Your task to perform on an android device: Go to privacy settings Image 0: 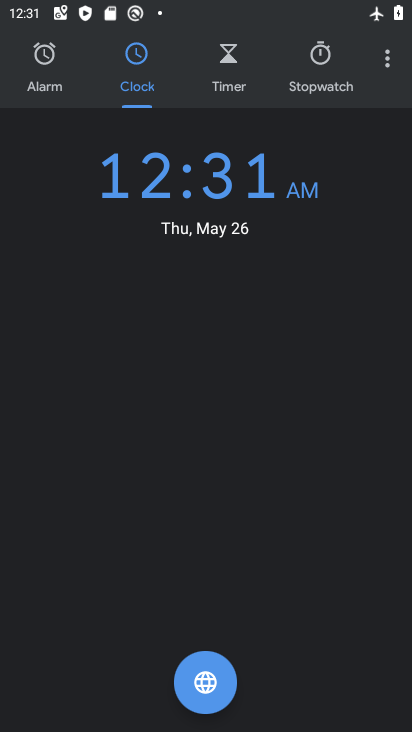
Step 0: press home button
Your task to perform on an android device: Go to privacy settings Image 1: 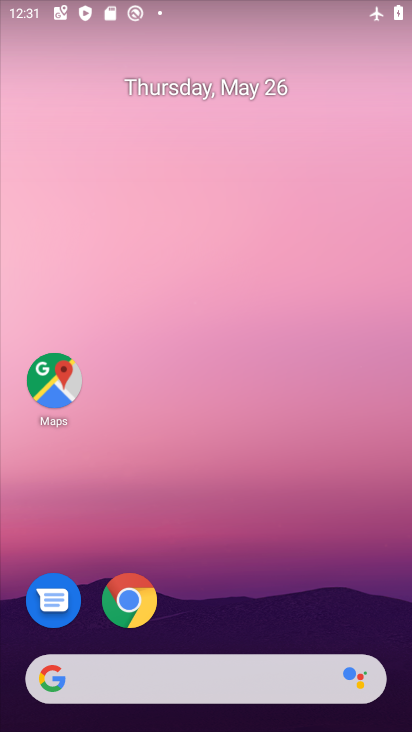
Step 1: drag from (281, 548) to (257, 117)
Your task to perform on an android device: Go to privacy settings Image 2: 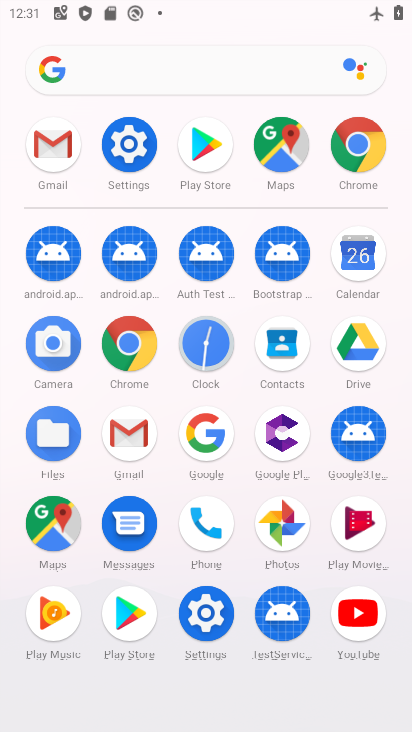
Step 2: click (127, 134)
Your task to perform on an android device: Go to privacy settings Image 3: 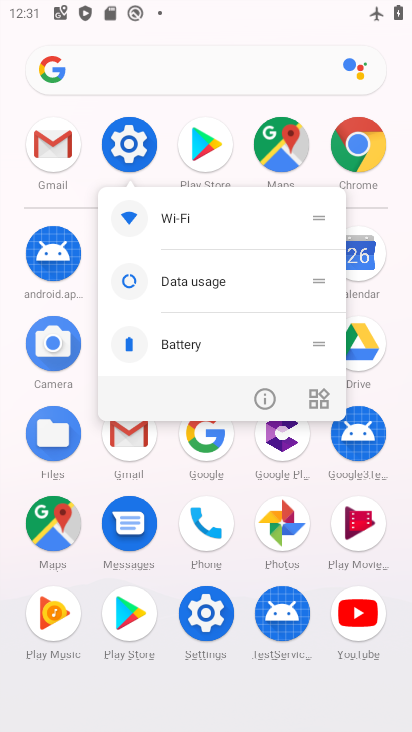
Step 3: click (131, 139)
Your task to perform on an android device: Go to privacy settings Image 4: 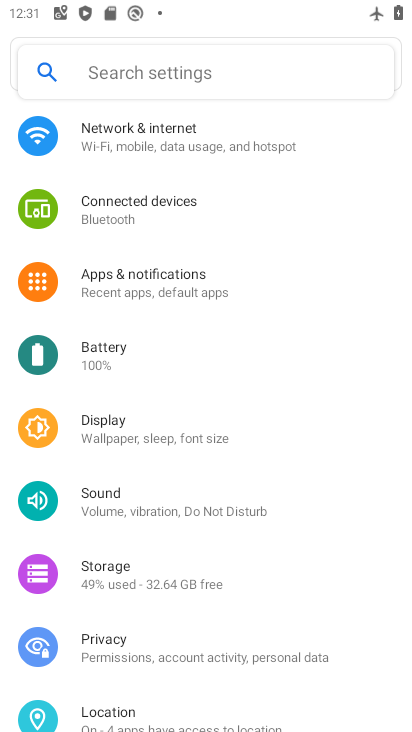
Step 4: drag from (220, 636) to (247, 272)
Your task to perform on an android device: Go to privacy settings Image 5: 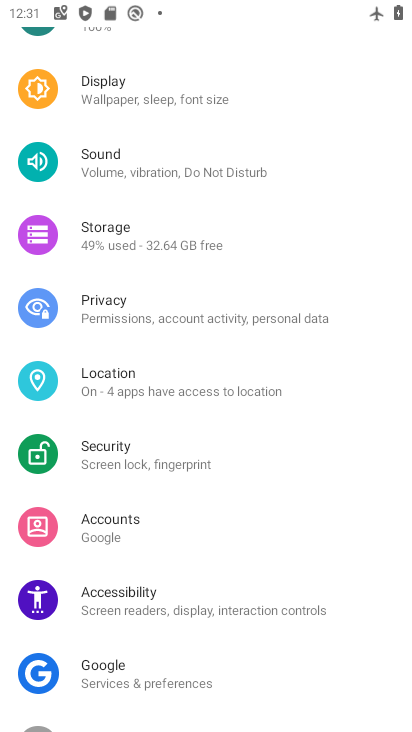
Step 5: click (127, 322)
Your task to perform on an android device: Go to privacy settings Image 6: 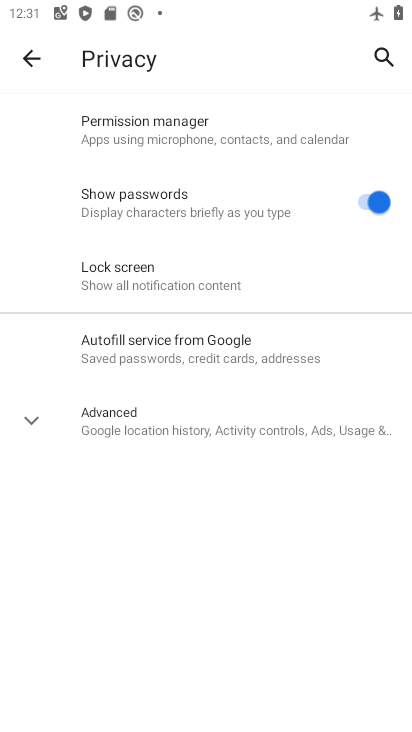
Step 6: task complete